Your task to perform on an android device: allow notifications from all sites in the chrome app Image 0: 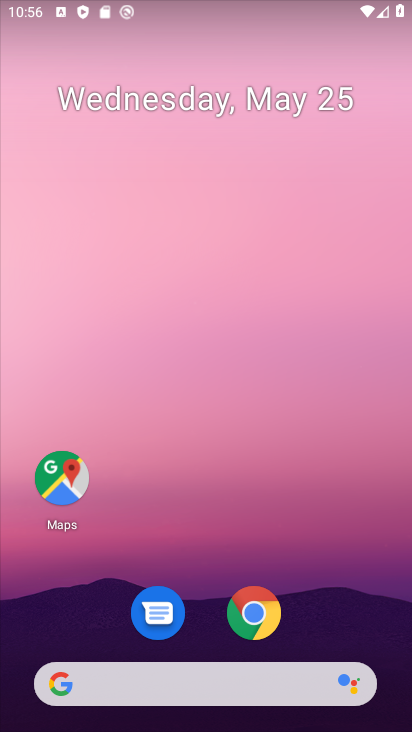
Step 0: click (258, 614)
Your task to perform on an android device: allow notifications from all sites in the chrome app Image 1: 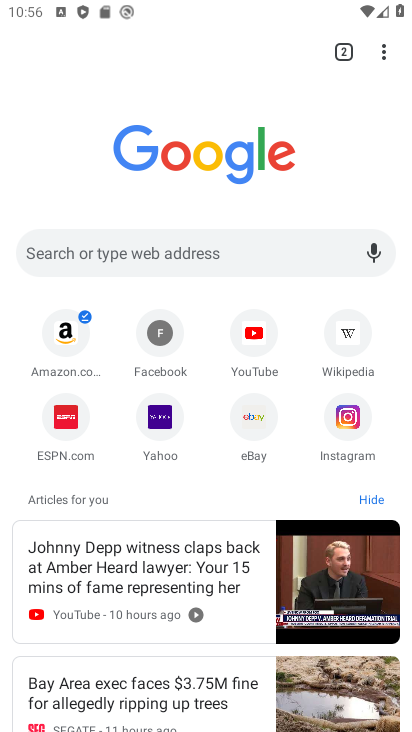
Step 1: click (376, 57)
Your task to perform on an android device: allow notifications from all sites in the chrome app Image 2: 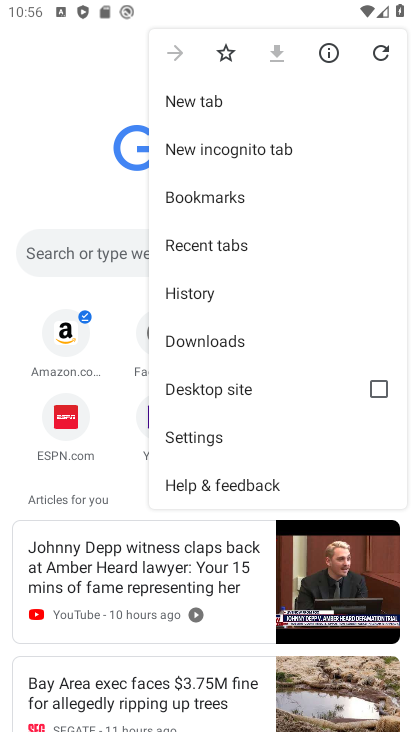
Step 2: click (233, 438)
Your task to perform on an android device: allow notifications from all sites in the chrome app Image 3: 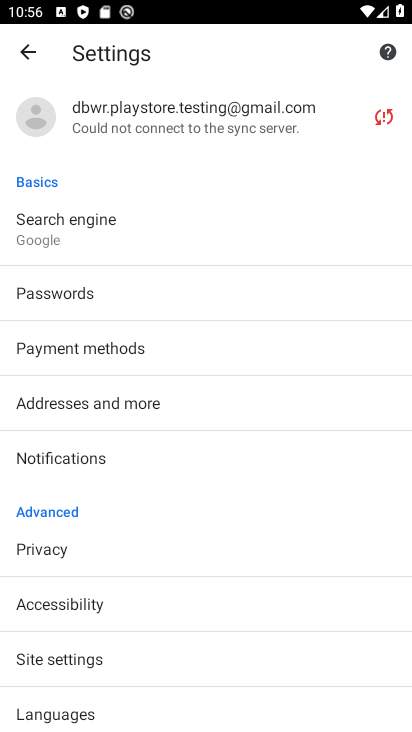
Step 3: click (230, 455)
Your task to perform on an android device: allow notifications from all sites in the chrome app Image 4: 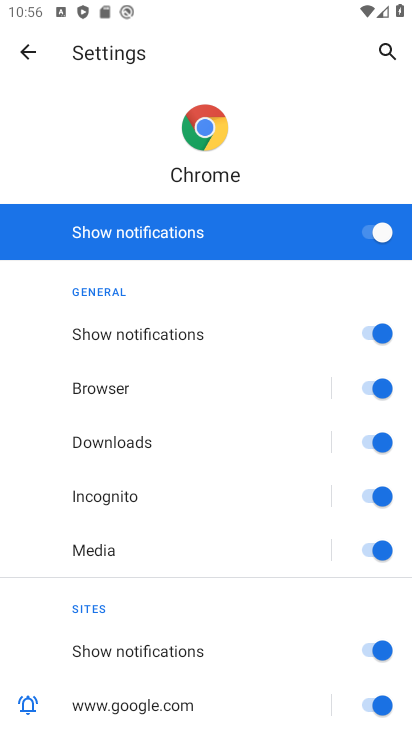
Step 4: task complete